Your task to perform on an android device: turn off smart reply in the gmail app Image 0: 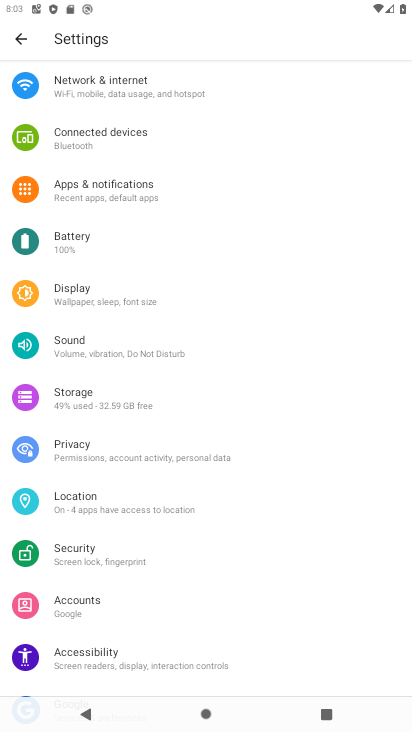
Step 0: press home button
Your task to perform on an android device: turn off smart reply in the gmail app Image 1: 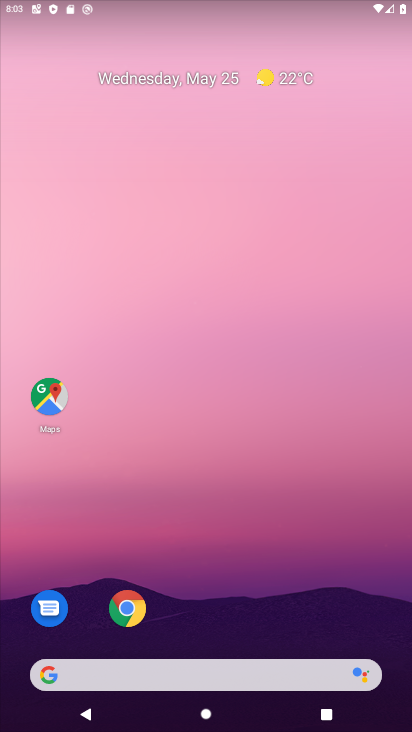
Step 1: drag from (249, 545) to (275, 125)
Your task to perform on an android device: turn off smart reply in the gmail app Image 2: 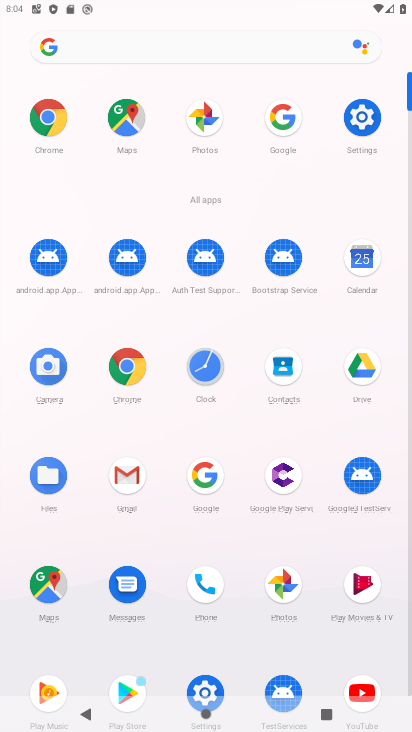
Step 2: click (124, 472)
Your task to perform on an android device: turn off smart reply in the gmail app Image 3: 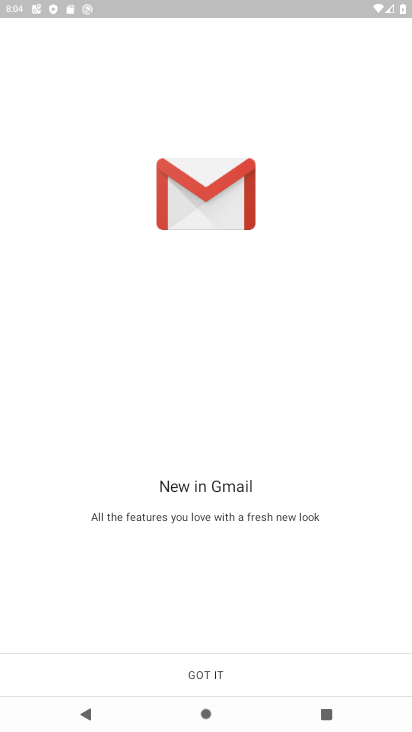
Step 3: click (206, 672)
Your task to perform on an android device: turn off smart reply in the gmail app Image 4: 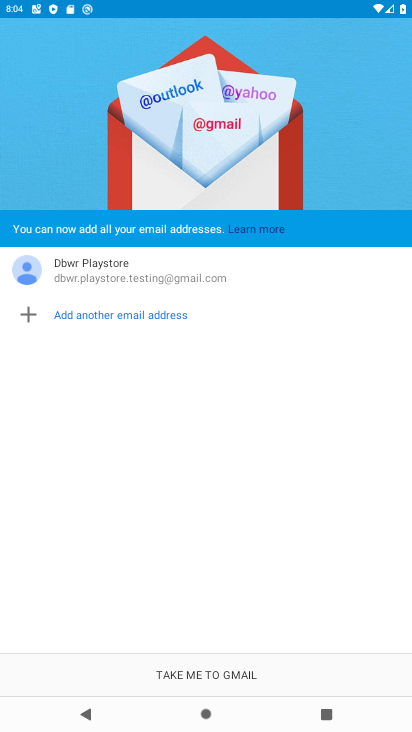
Step 4: click (206, 672)
Your task to perform on an android device: turn off smart reply in the gmail app Image 5: 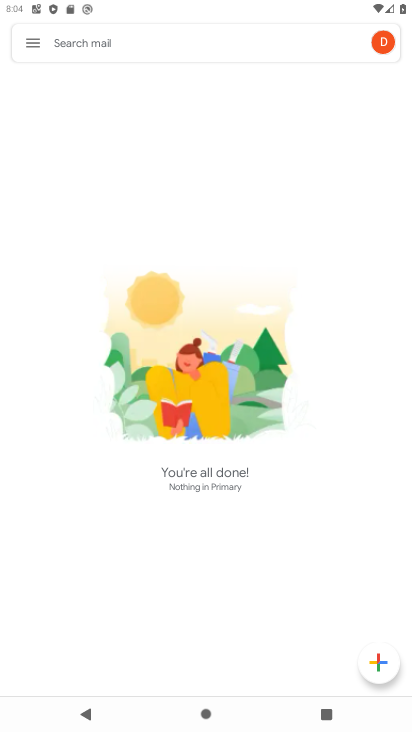
Step 5: click (29, 41)
Your task to perform on an android device: turn off smart reply in the gmail app Image 6: 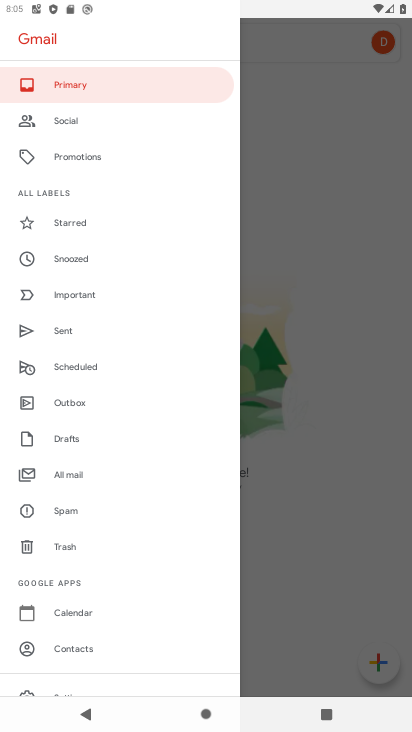
Step 6: drag from (85, 491) to (103, 432)
Your task to perform on an android device: turn off smart reply in the gmail app Image 7: 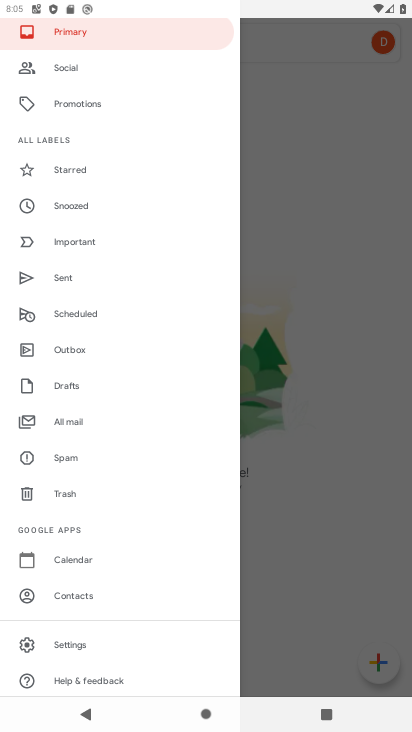
Step 7: click (71, 642)
Your task to perform on an android device: turn off smart reply in the gmail app Image 8: 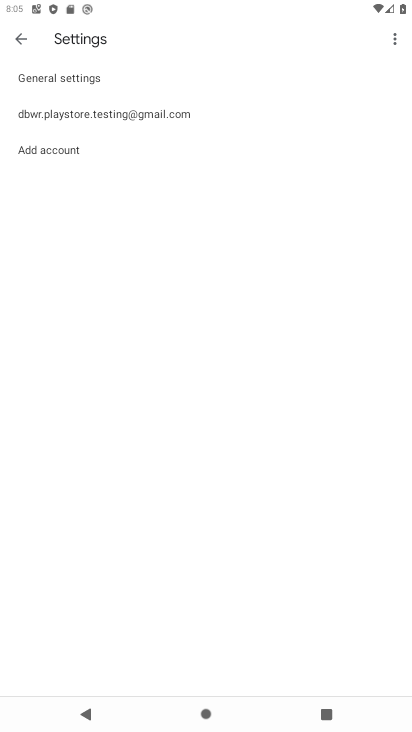
Step 8: click (148, 115)
Your task to perform on an android device: turn off smart reply in the gmail app Image 9: 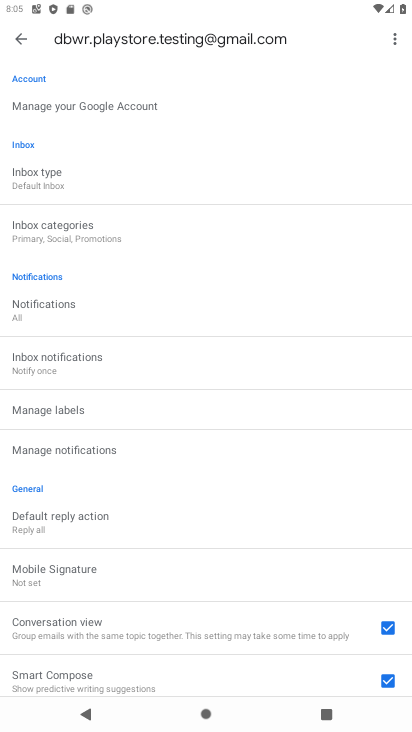
Step 9: drag from (152, 592) to (224, 489)
Your task to perform on an android device: turn off smart reply in the gmail app Image 10: 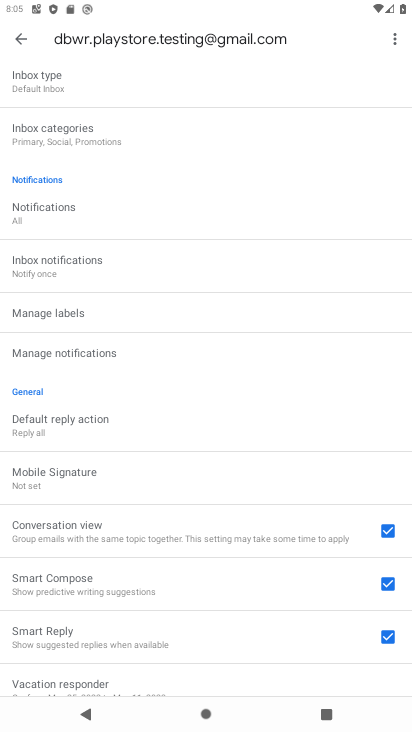
Step 10: click (389, 644)
Your task to perform on an android device: turn off smart reply in the gmail app Image 11: 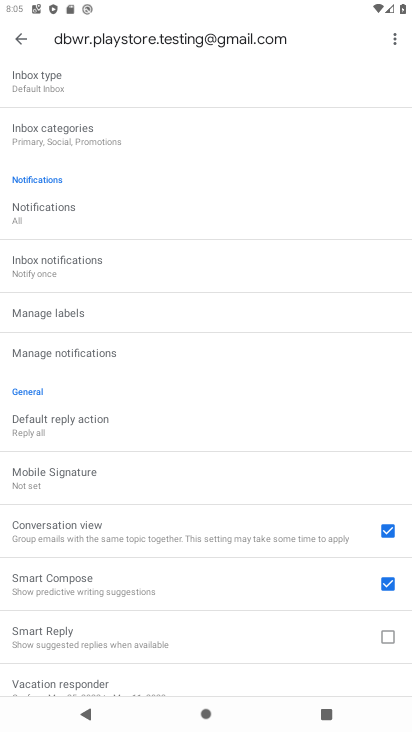
Step 11: task complete